Your task to perform on an android device: move a message to another label in the gmail app Image 0: 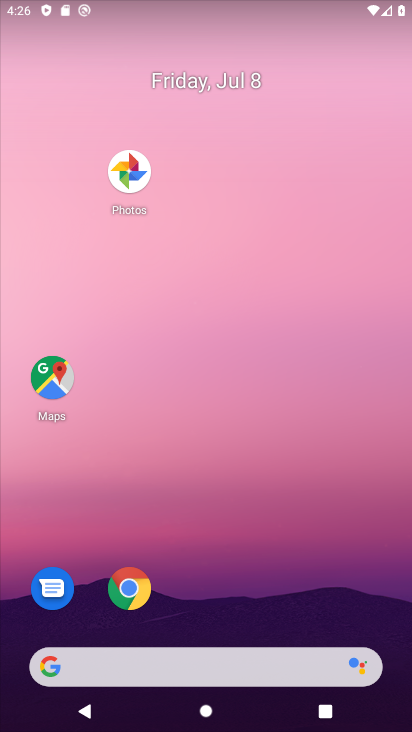
Step 0: click (218, 219)
Your task to perform on an android device: move a message to another label in the gmail app Image 1: 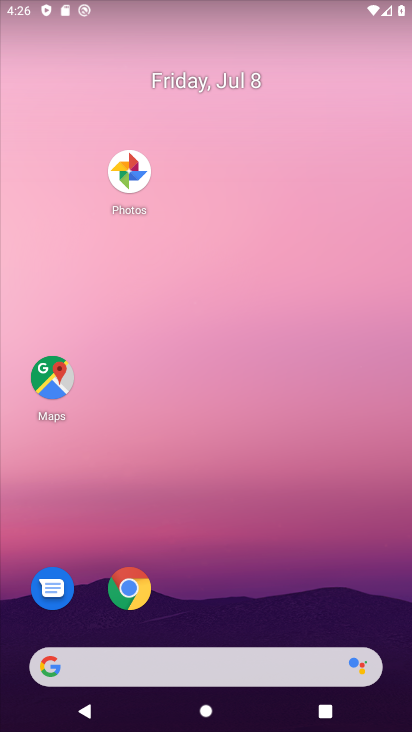
Step 1: drag from (254, 707) to (139, 108)
Your task to perform on an android device: move a message to another label in the gmail app Image 2: 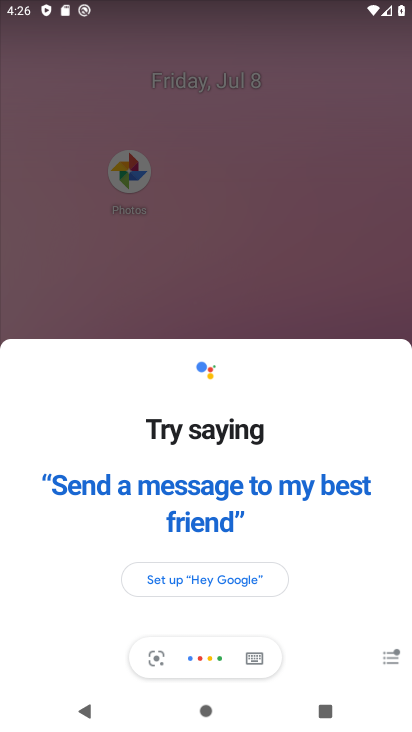
Step 2: drag from (251, 707) to (113, 97)
Your task to perform on an android device: move a message to another label in the gmail app Image 3: 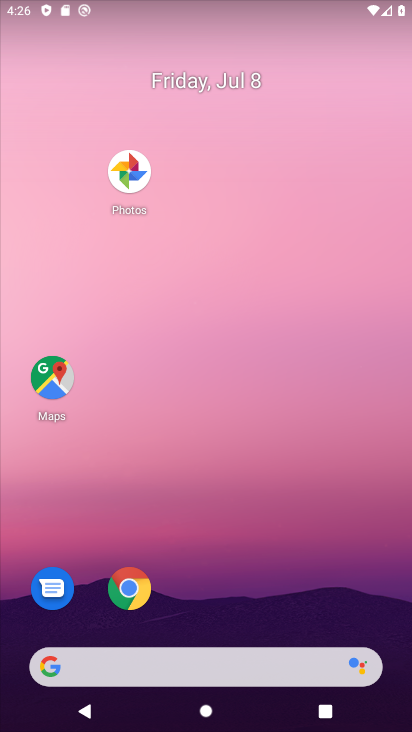
Step 3: drag from (258, 310) to (259, 179)
Your task to perform on an android device: move a message to another label in the gmail app Image 4: 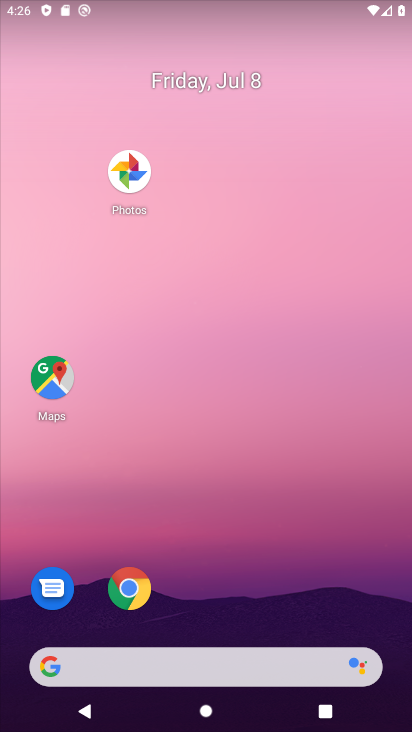
Step 4: click (244, 201)
Your task to perform on an android device: move a message to another label in the gmail app Image 5: 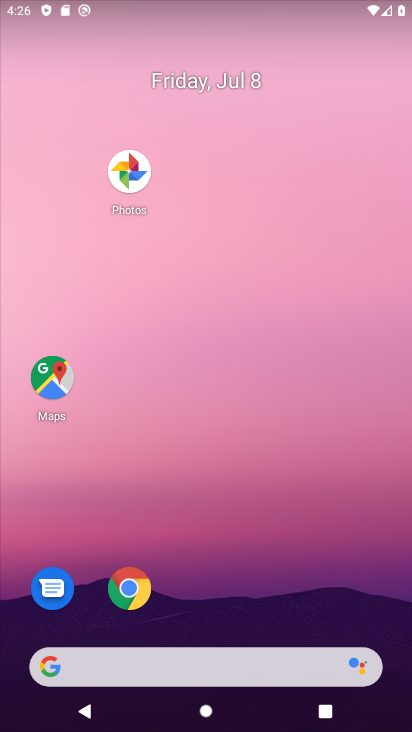
Step 5: drag from (287, 573) to (75, 145)
Your task to perform on an android device: move a message to another label in the gmail app Image 6: 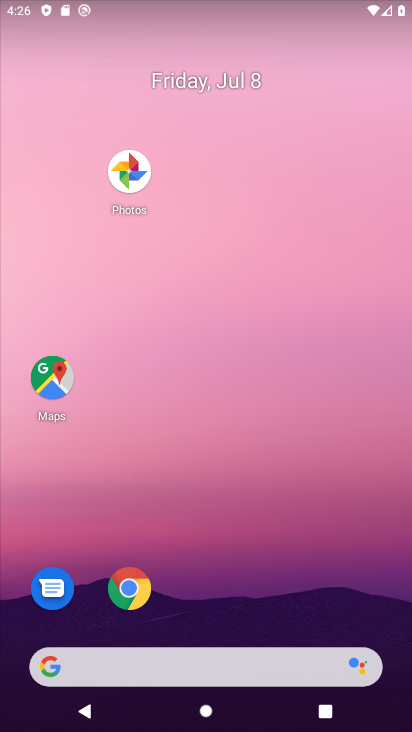
Step 6: drag from (233, 448) to (144, 134)
Your task to perform on an android device: move a message to another label in the gmail app Image 7: 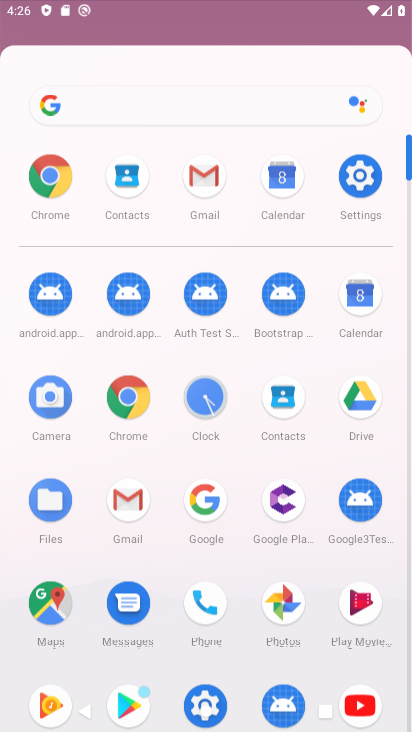
Step 7: drag from (233, 493) to (113, 180)
Your task to perform on an android device: move a message to another label in the gmail app Image 8: 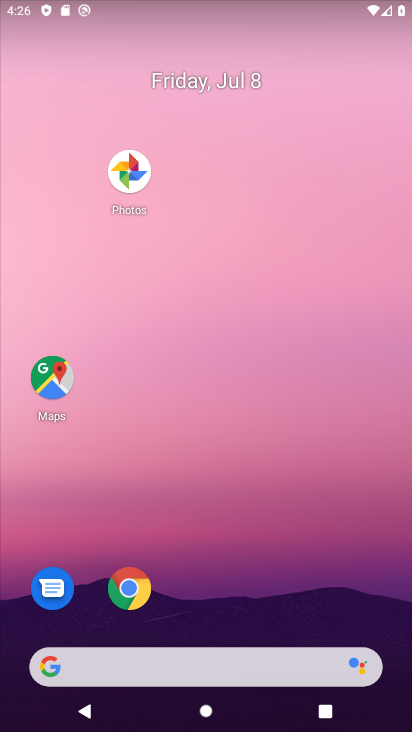
Step 8: drag from (268, 576) to (173, 136)
Your task to perform on an android device: move a message to another label in the gmail app Image 9: 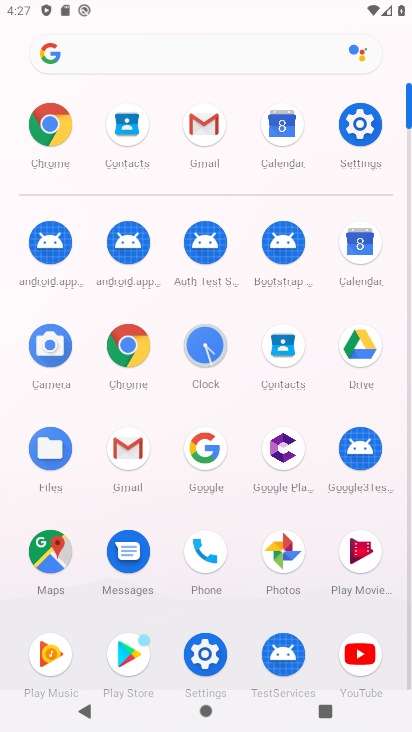
Step 9: click (128, 451)
Your task to perform on an android device: move a message to another label in the gmail app Image 10: 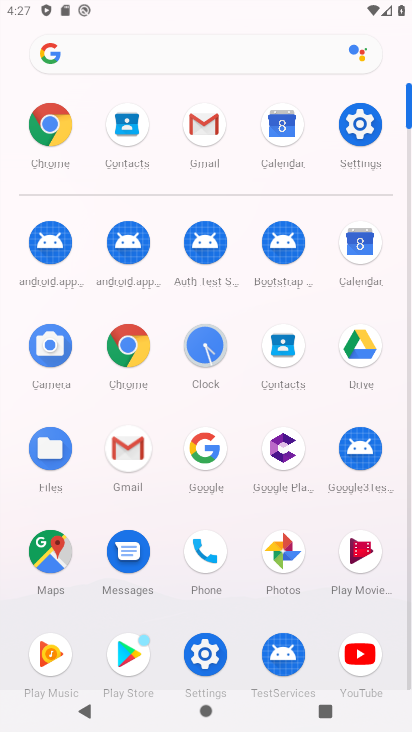
Step 10: click (128, 451)
Your task to perform on an android device: move a message to another label in the gmail app Image 11: 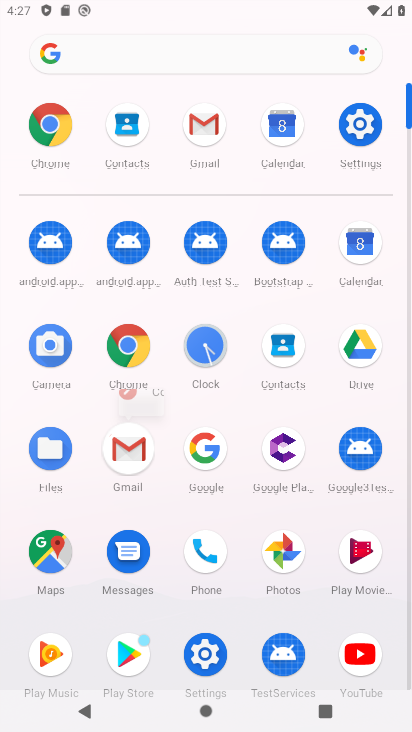
Step 11: click (116, 449)
Your task to perform on an android device: move a message to another label in the gmail app Image 12: 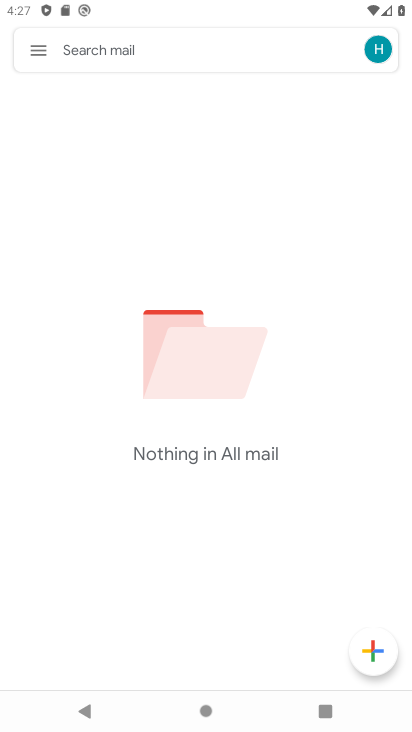
Step 12: click (34, 39)
Your task to perform on an android device: move a message to another label in the gmail app Image 13: 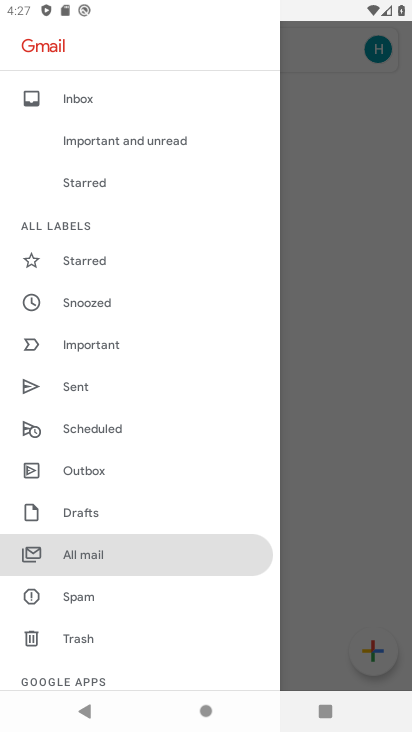
Step 13: click (106, 575)
Your task to perform on an android device: move a message to another label in the gmail app Image 14: 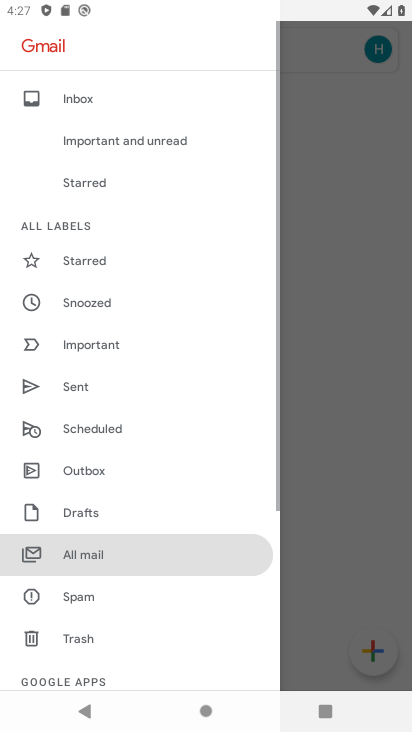
Step 14: click (105, 574)
Your task to perform on an android device: move a message to another label in the gmail app Image 15: 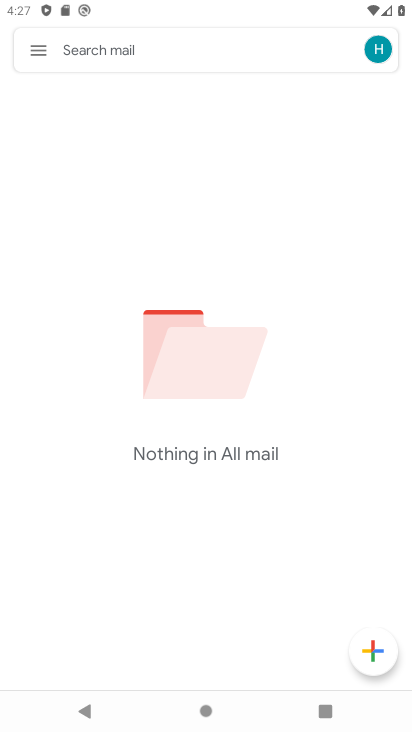
Step 15: task complete